Your task to perform on an android device: empty trash in google photos Image 0: 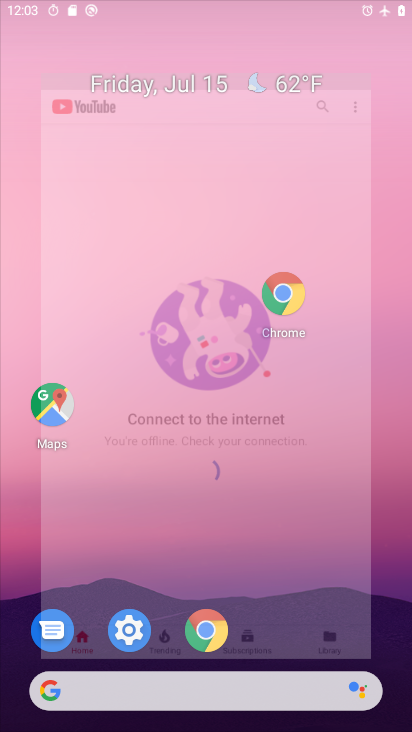
Step 0: drag from (233, 158) to (230, 99)
Your task to perform on an android device: empty trash in google photos Image 1: 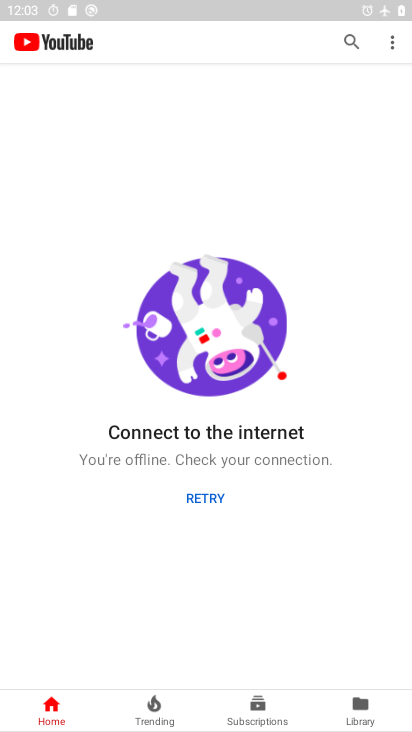
Step 1: press back button
Your task to perform on an android device: empty trash in google photos Image 2: 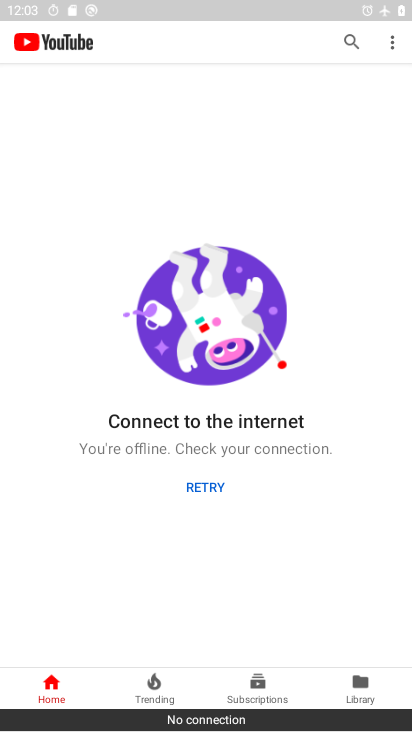
Step 2: press back button
Your task to perform on an android device: empty trash in google photos Image 3: 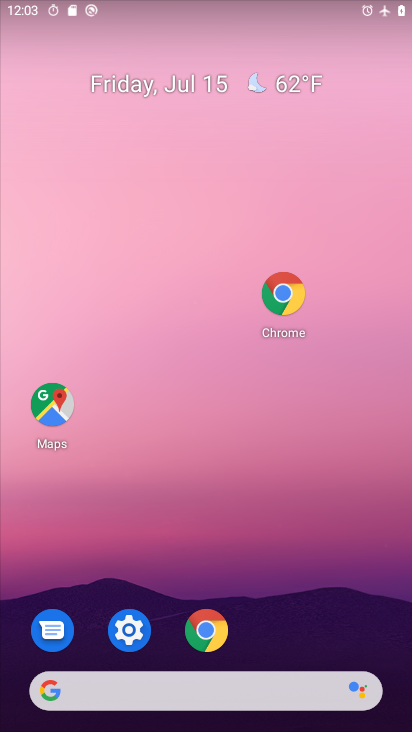
Step 3: press home button
Your task to perform on an android device: empty trash in google photos Image 4: 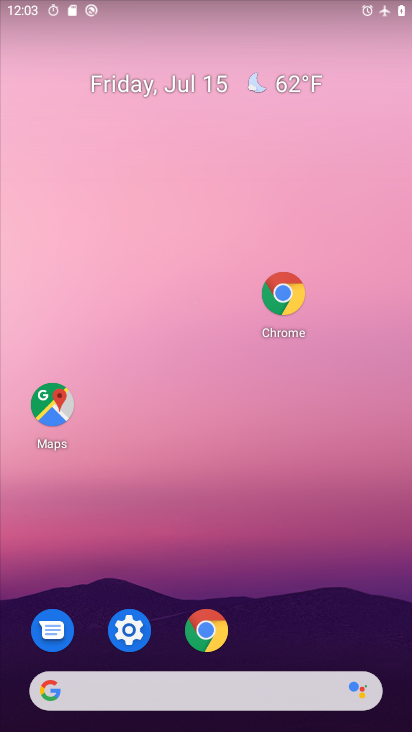
Step 4: drag from (235, 654) to (161, 85)
Your task to perform on an android device: empty trash in google photos Image 5: 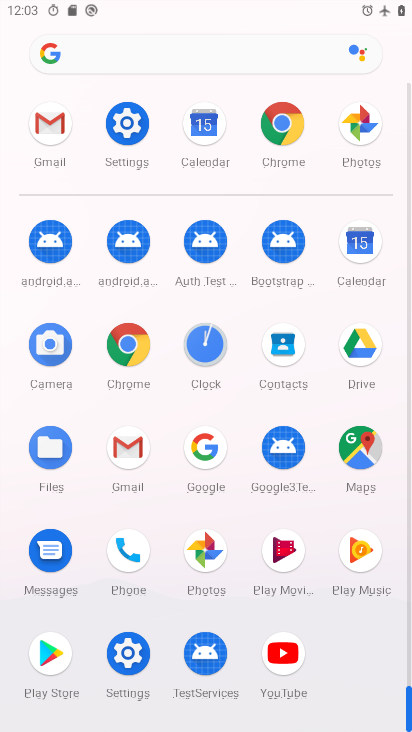
Step 5: click (126, 133)
Your task to perform on an android device: empty trash in google photos Image 6: 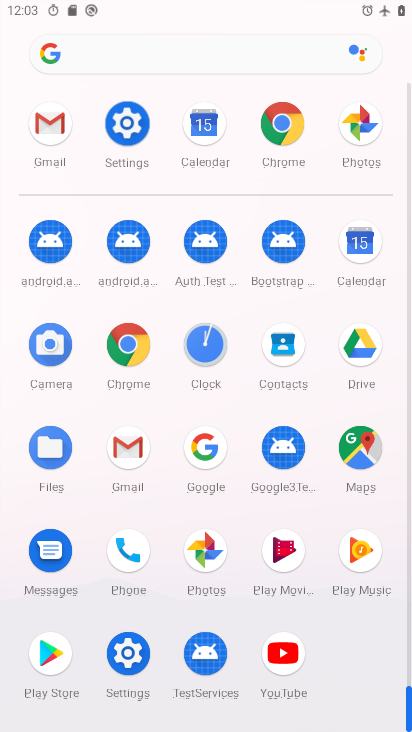
Step 6: click (125, 131)
Your task to perform on an android device: empty trash in google photos Image 7: 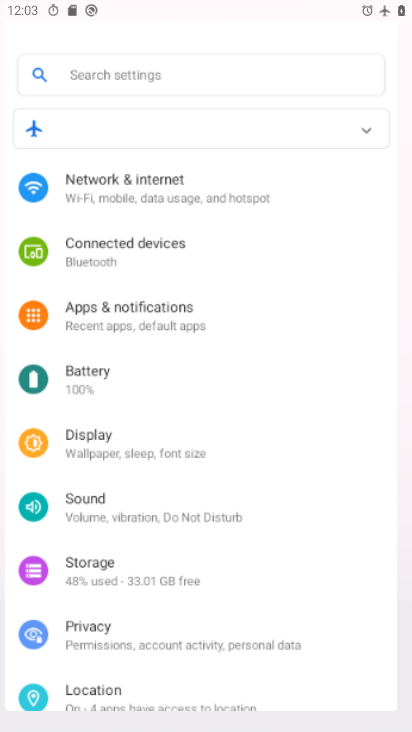
Step 7: click (125, 131)
Your task to perform on an android device: empty trash in google photos Image 8: 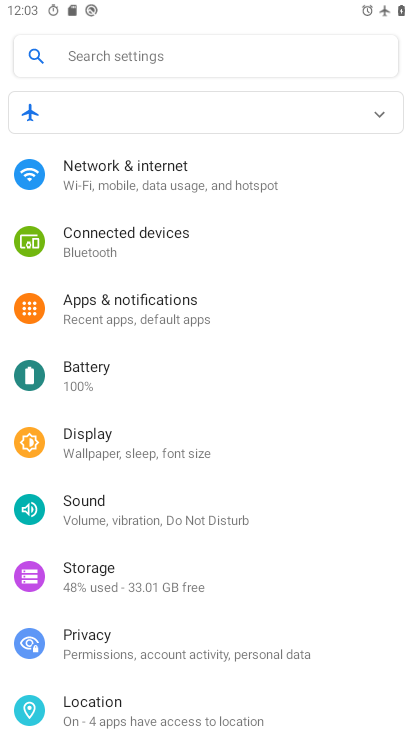
Step 8: click (125, 172)
Your task to perform on an android device: empty trash in google photos Image 9: 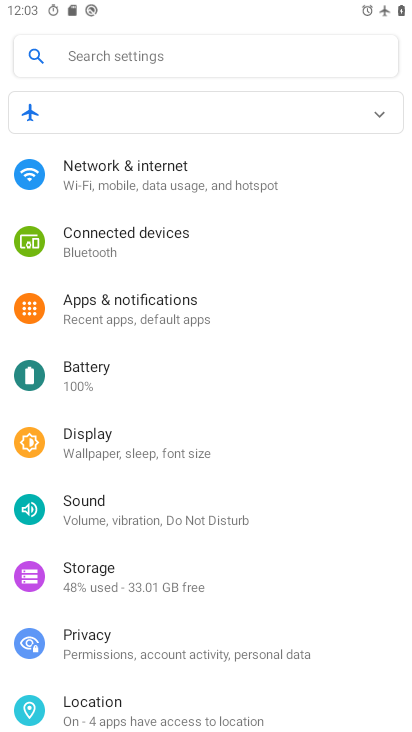
Step 9: click (127, 177)
Your task to perform on an android device: empty trash in google photos Image 10: 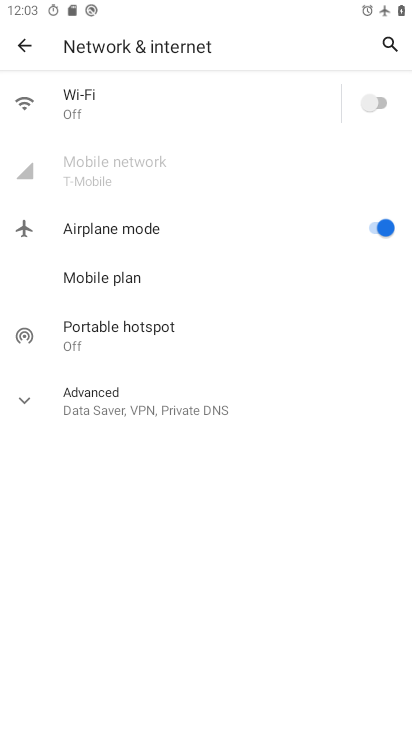
Step 10: click (396, 226)
Your task to perform on an android device: empty trash in google photos Image 11: 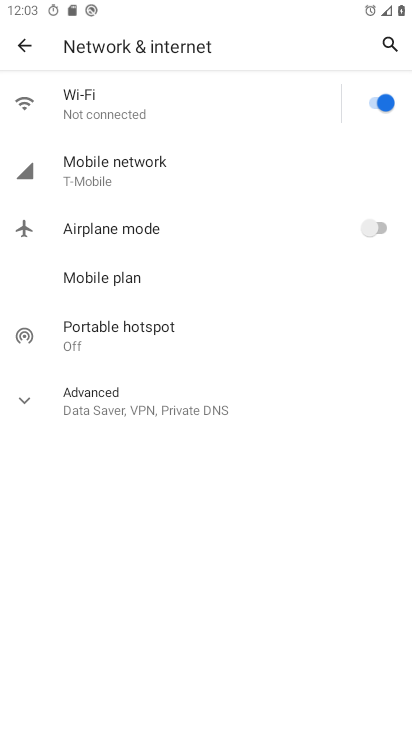
Step 11: click (370, 108)
Your task to perform on an android device: empty trash in google photos Image 12: 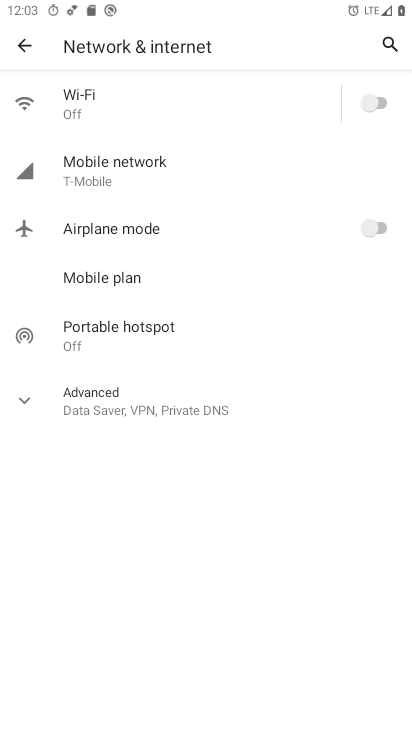
Step 12: click (375, 94)
Your task to perform on an android device: empty trash in google photos Image 13: 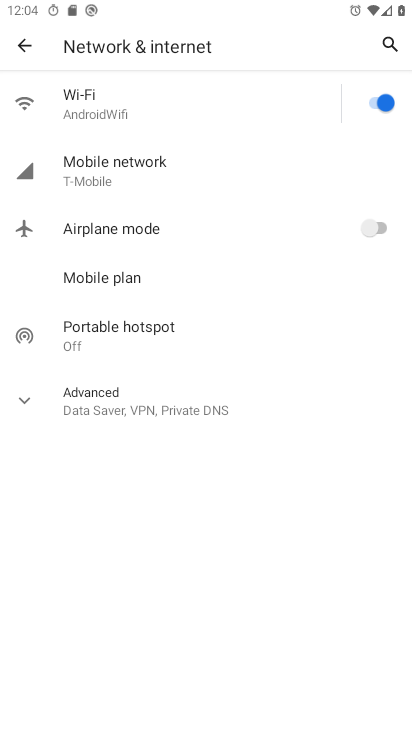
Step 13: press home button
Your task to perform on an android device: empty trash in google photos Image 14: 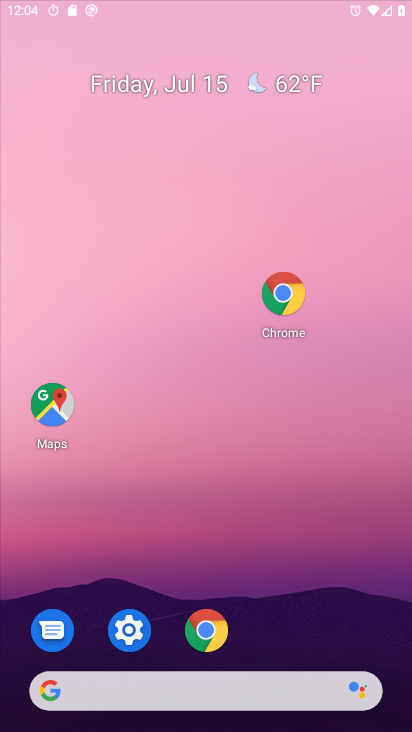
Step 14: click (26, 48)
Your task to perform on an android device: empty trash in google photos Image 15: 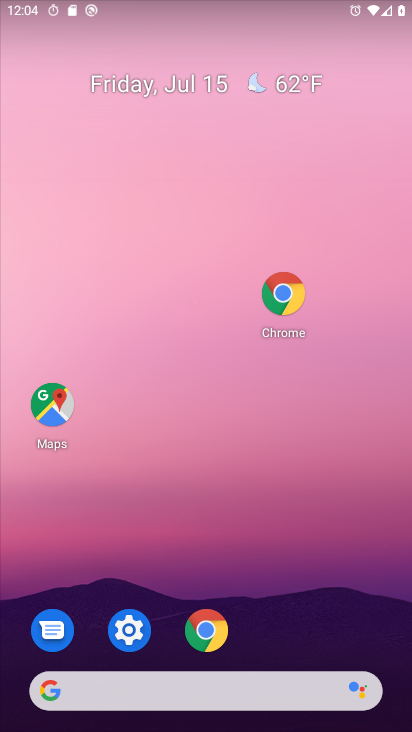
Step 15: drag from (231, 688) to (118, 16)
Your task to perform on an android device: empty trash in google photos Image 16: 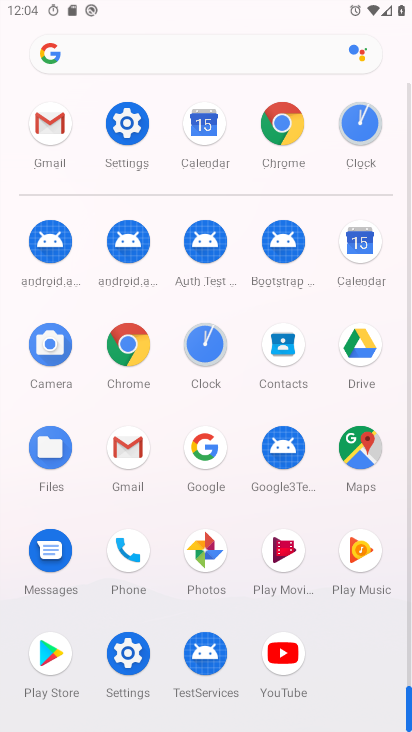
Step 16: click (199, 557)
Your task to perform on an android device: empty trash in google photos Image 17: 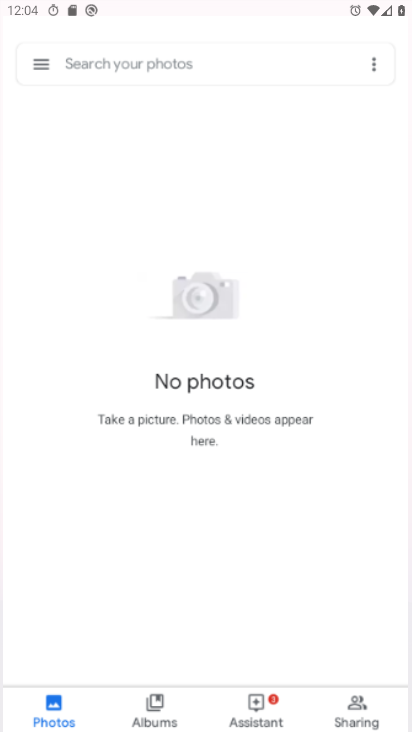
Step 17: click (204, 557)
Your task to perform on an android device: empty trash in google photos Image 18: 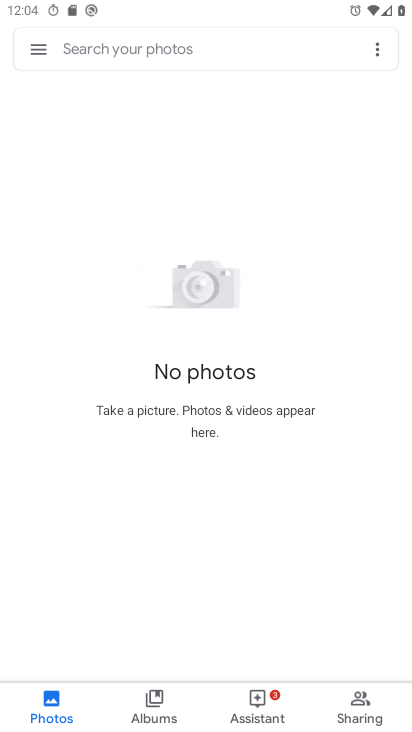
Step 18: drag from (44, 54) to (99, 368)
Your task to perform on an android device: empty trash in google photos Image 19: 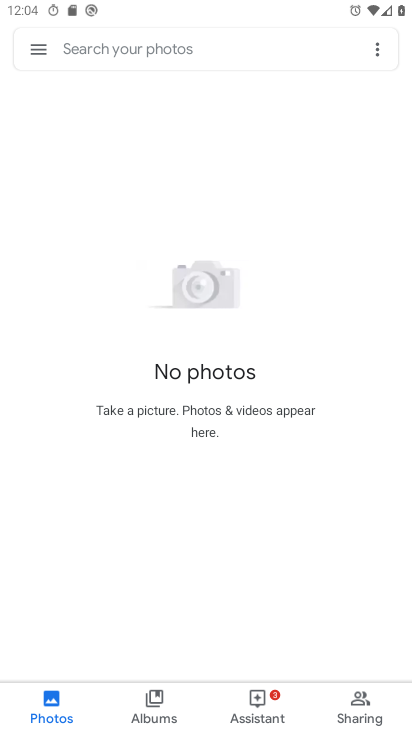
Step 19: drag from (45, 51) to (112, 268)
Your task to perform on an android device: empty trash in google photos Image 20: 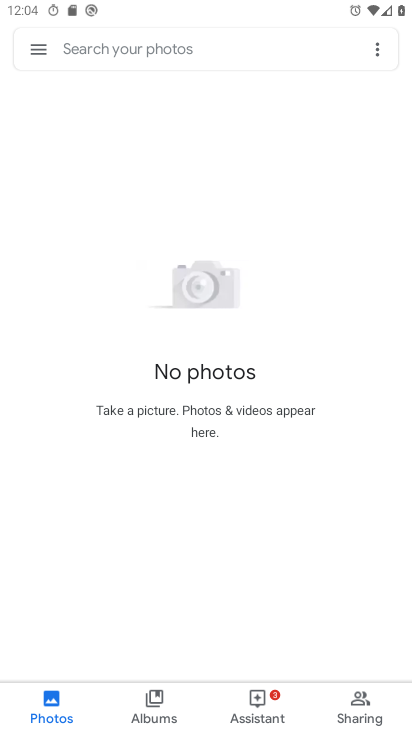
Step 20: drag from (41, 54) to (196, 485)
Your task to perform on an android device: empty trash in google photos Image 21: 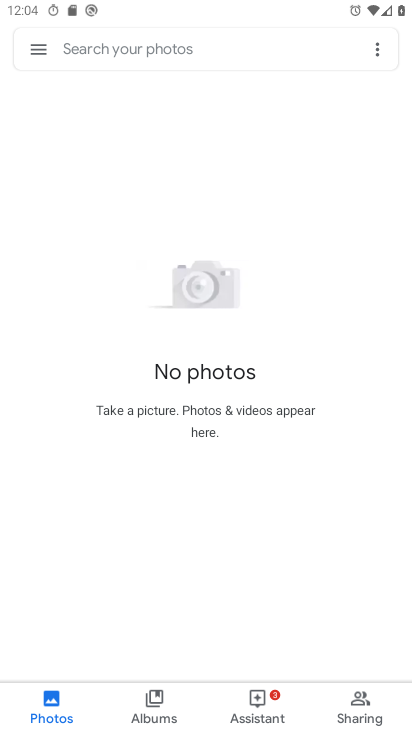
Step 21: drag from (40, 53) to (174, 451)
Your task to perform on an android device: empty trash in google photos Image 22: 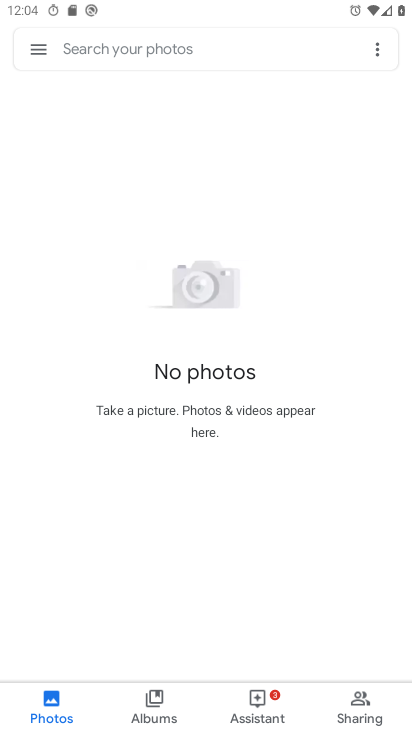
Step 22: click (31, 48)
Your task to perform on an android device: empty trash in google photos Image 23: 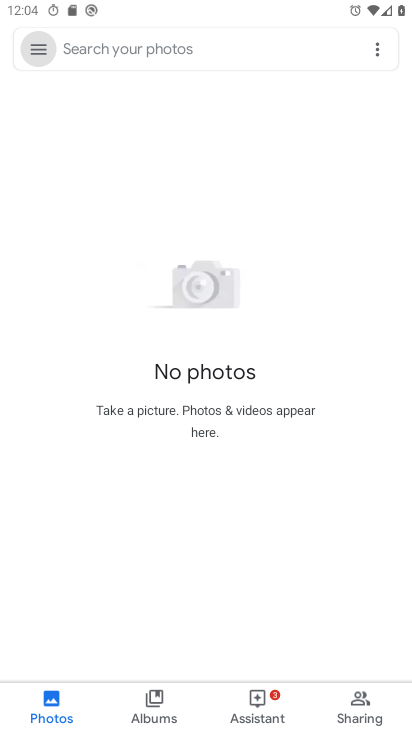
Step 23: drag from (31, 48) to (70, 192)
Your task to perform on an android device: empty trash in google photos Image 24: 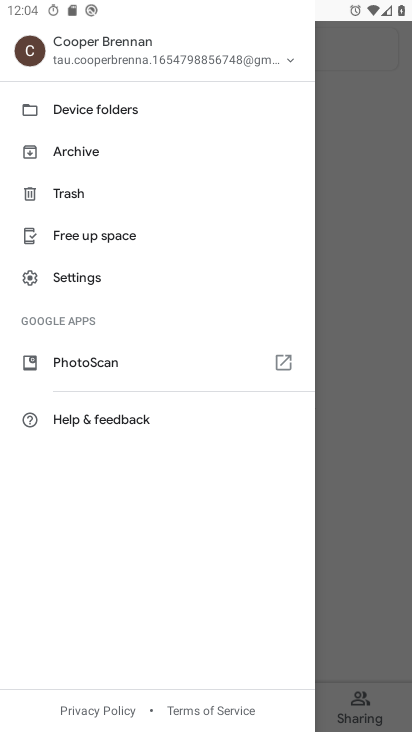
Step 24: click (76, 170)
Your task to perform on an android device: empty trash in google photos Image 25: 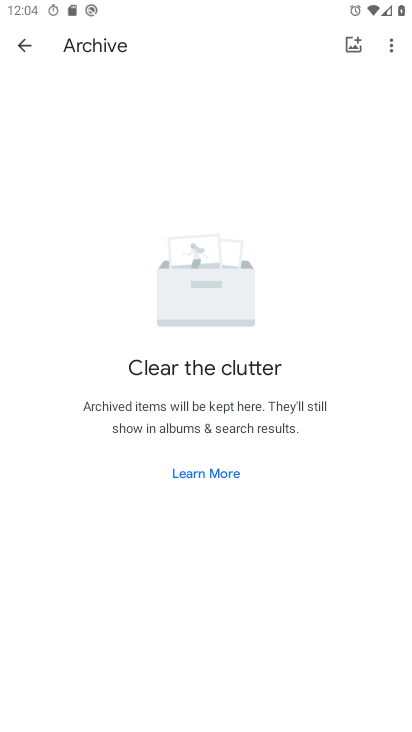
Step 25: click (33, 44)
Your task to perform on an android device: empty trash in google photos Image 26: 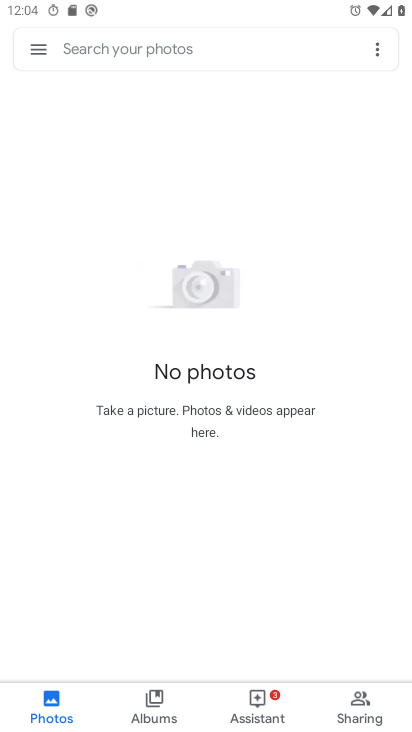
Step 26: drag from (29, 48) to (109, 348)
Your task to perform on an android device: empty trash in google photos Image 27: 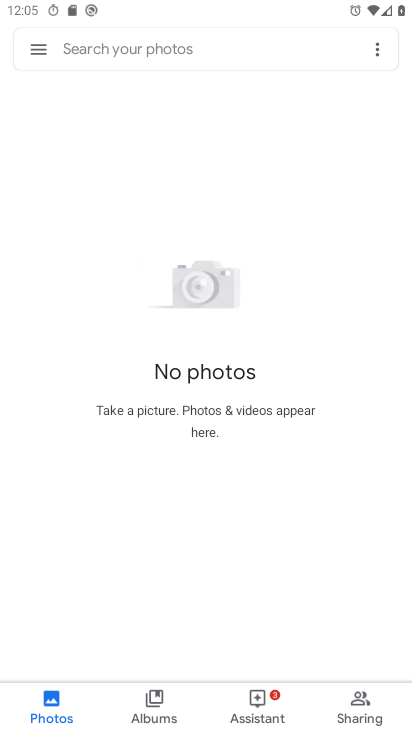
Step 27: drag from (33, 48) to (178, 251)
Your task to perform on an android device: empty trash in google photos Image 28: 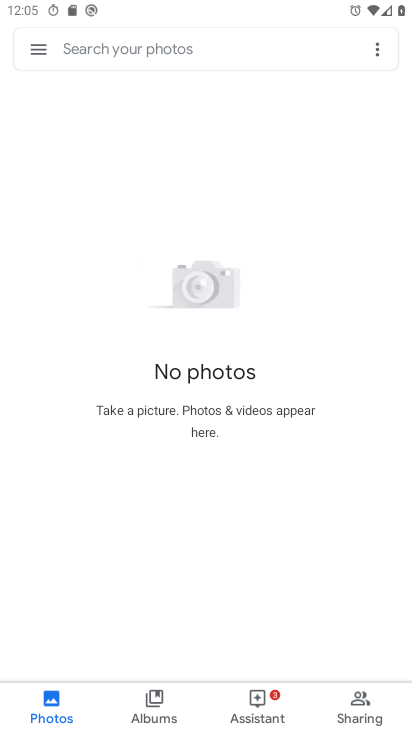
Step 28: click (37, 62)
Your task to perform on an android device: empty trash in google photos Image 29: 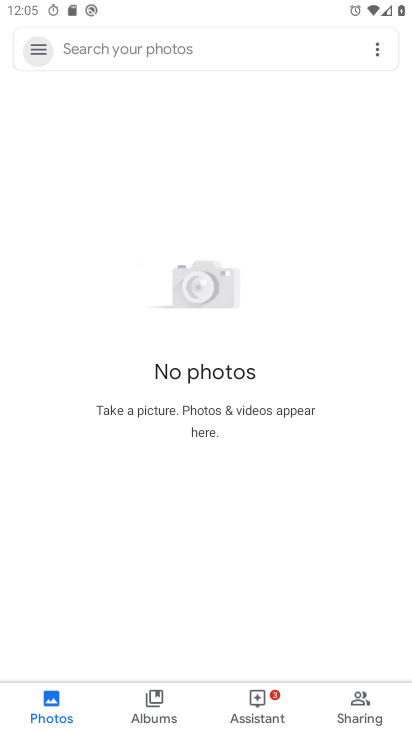
Step 29: click (37, 62)
Your task to perform on an android device: empty trash in google photos Image 30: 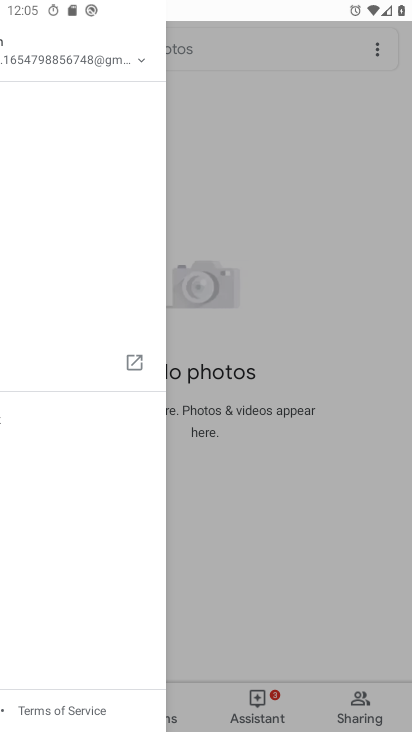
Step 30: click (37, 61)
Your task to perform on an android device: empty trash in google photos Image 31: 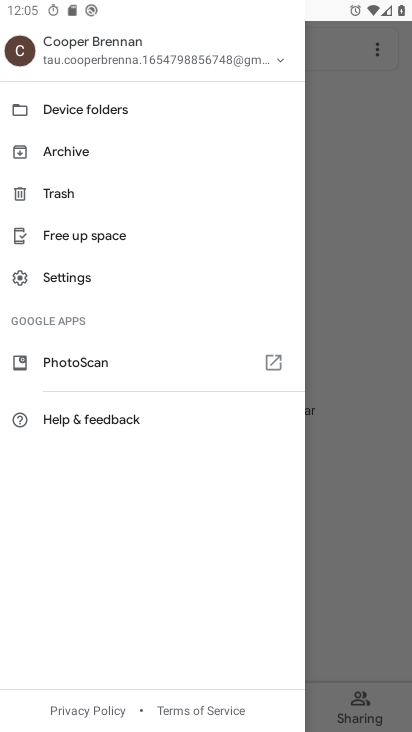
Step 31: drag from (37, 61) to (68, 183)
Your task to perform on an android device: empty trash in google photos Image 32: 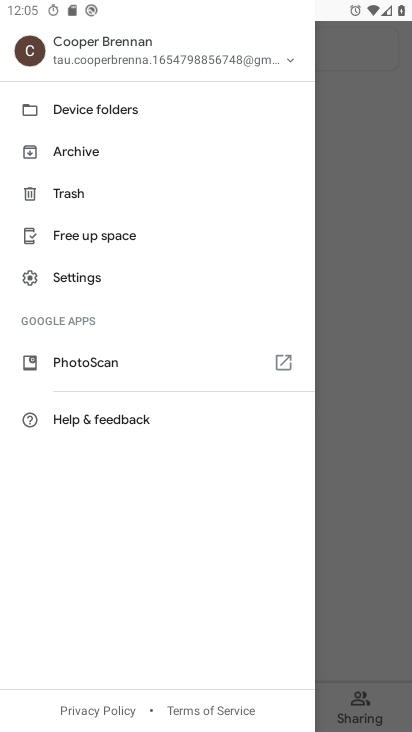
Step 32: click (67, 187)
Your task to perform on an android device: empty trash in google photos Image 33: 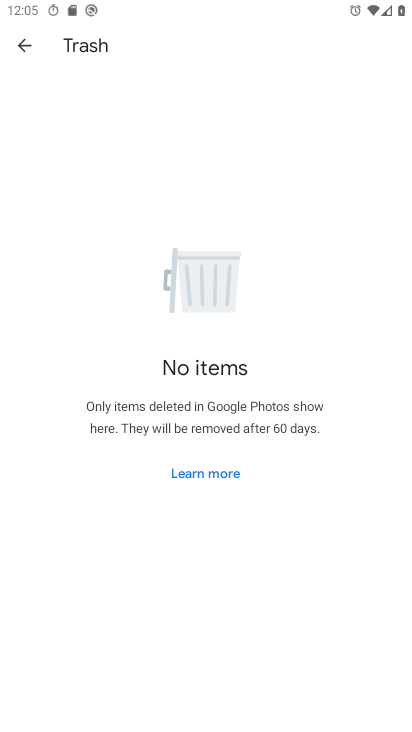
Step 33: task complete